Your task to perform on an android device: Open Google Chrome and click the shortcut for Amazon.com Image 0: 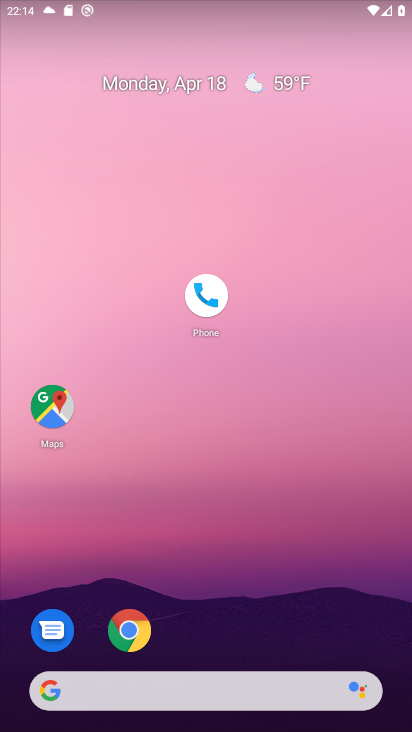
Step 0: drag from (251, 625) to (277, 195)
Your task to perform on an android device: Open Google Chrome and click the shortcut for Amazon.com Image 1: 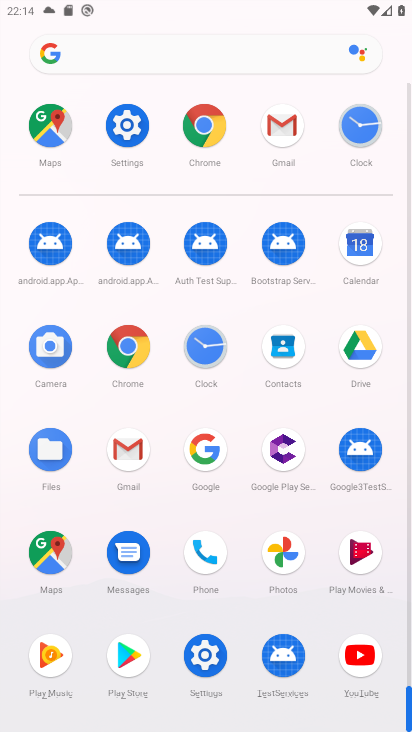
Step 1: click (131, 352)
Your task to perform on an android device: Open Google Chrome and click the shortcut for Amazon.com Image 2: 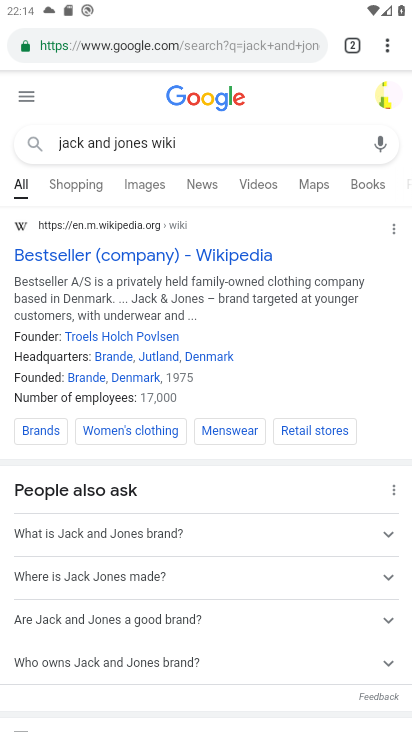
Step 2: drag from (386, 48) to (236, 139)
Your task to perform on an android device: Open Google Chrome and click the shortcut for Amazon.com Image 3: 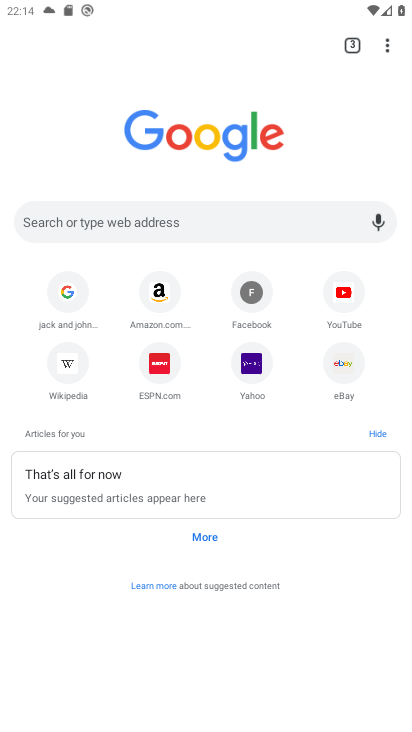
Step 3: click (172, 299)
Your task to perform on an android device: Open Google Chrome and click the shortcut for Amazon.com Image 4: 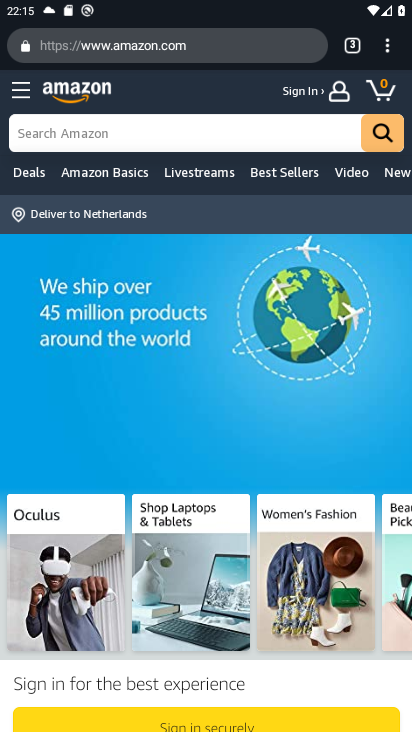
Step 4: task complete